Your task to perform on an android device: delete browsing data in the chrome app Image 0: 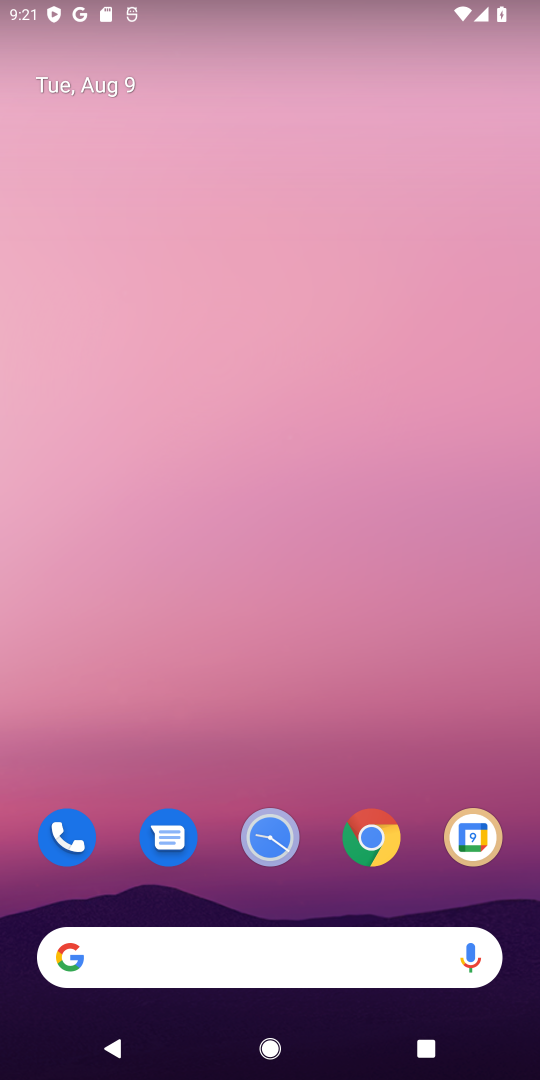
Step 0: click (368, 839)
Your task to perform on an android device: delete browsing data in the chrome app Image 1: 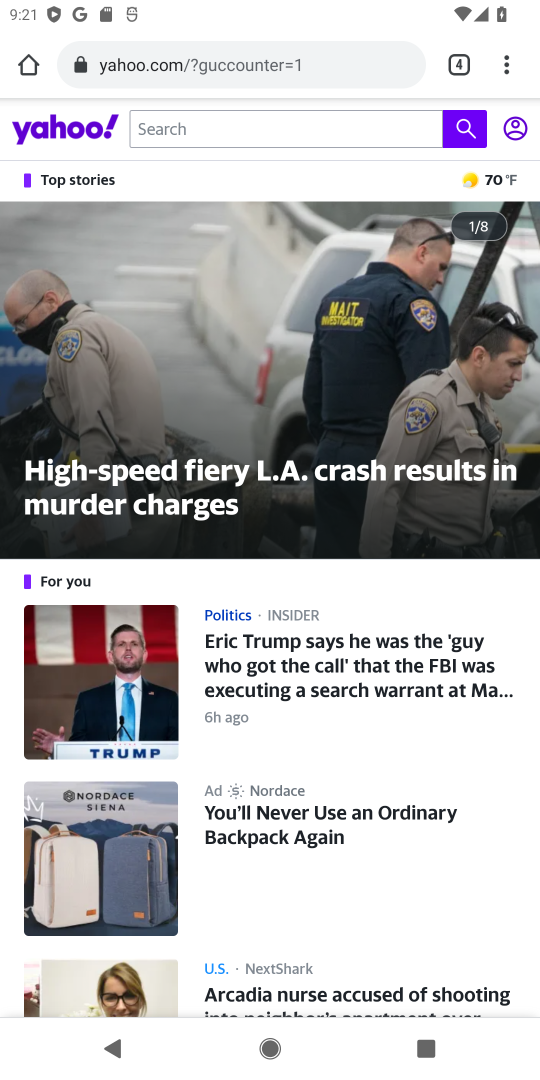
Step 1: click (509, 74)
Your task to perform on an android device: delete browsing data in the chrome app Image 2: 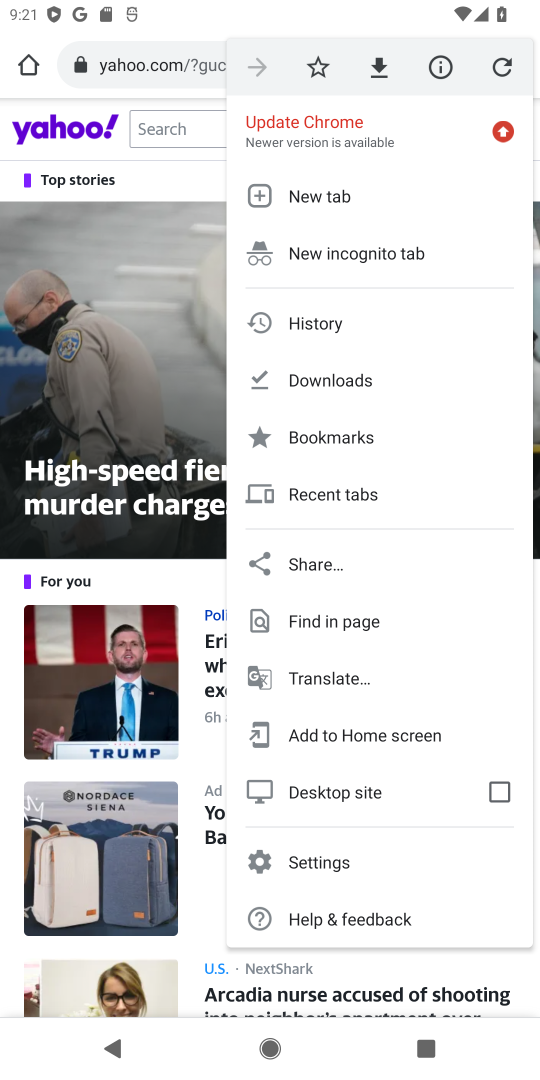
Step 2: click (324, 316)
Your task to perform on an android device: delete browsing data in the chrome app Image 3: 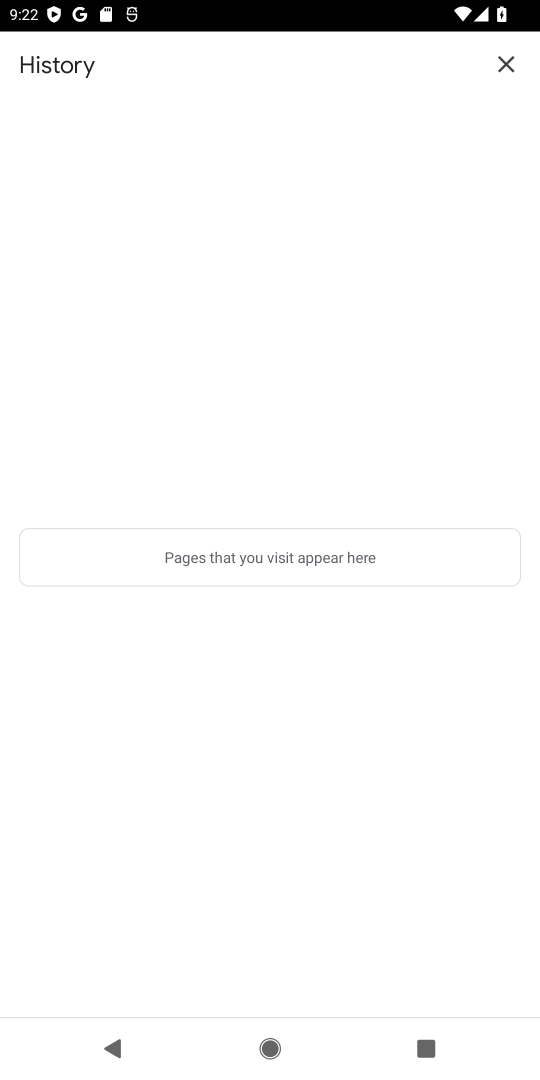
Step 3: task complete